Your task to perform on an android device: turn on improve location accuracy Image 0: 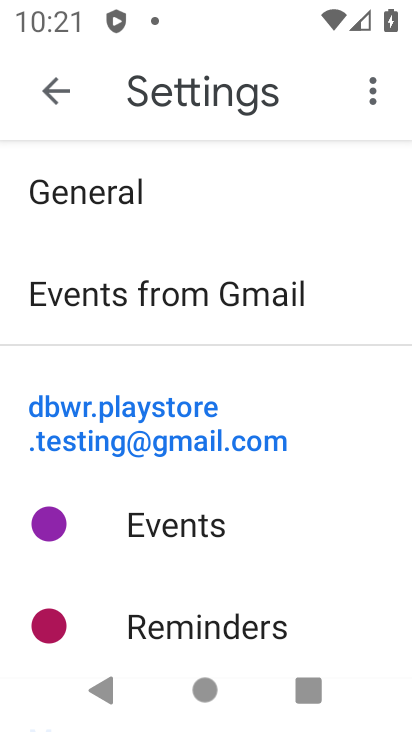
Step 0: press home button
Your task to perform on an android device: turn on improve location accuracy Image 1: 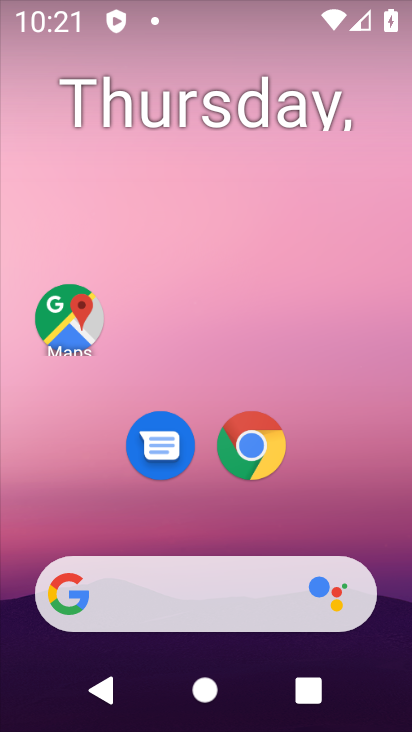
Step 1: drag from (249, 724) to (249, 154)
Your task to perform on an android device: turn on improve location accuracy Image 2: 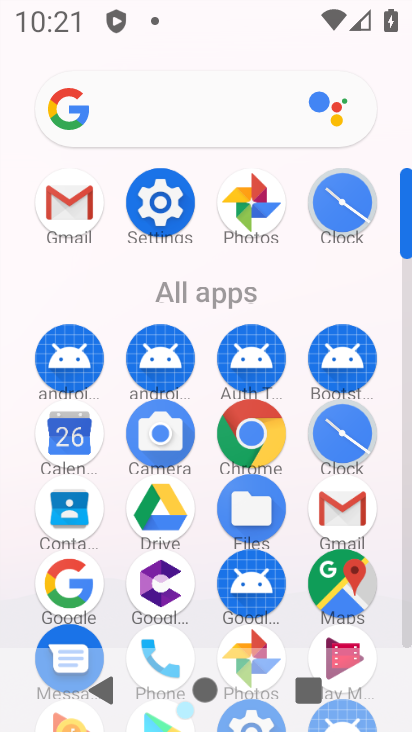
Step 2: click (153, 199)
Your task to perform on an android device: turn on improve location accuracy Image 3: 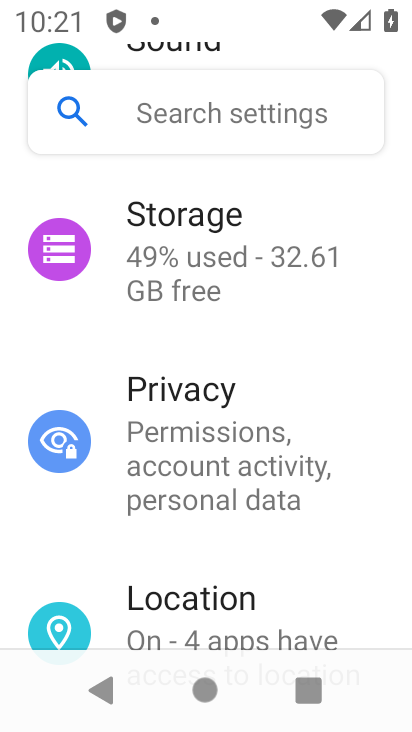
Step 3: click (174, 598)
Your task to perform on an android device: turn on improve location accuracy Image 4: 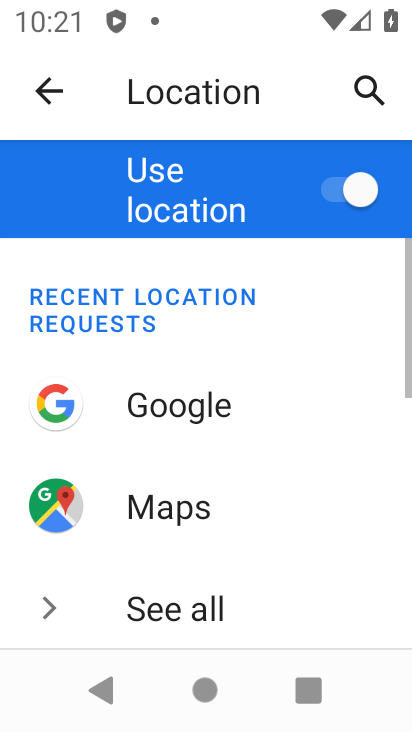
Step 4: drag from (284, 618) to (282, 228)
Your task to perform on an android device: turn on improve location accuracy Image 5: 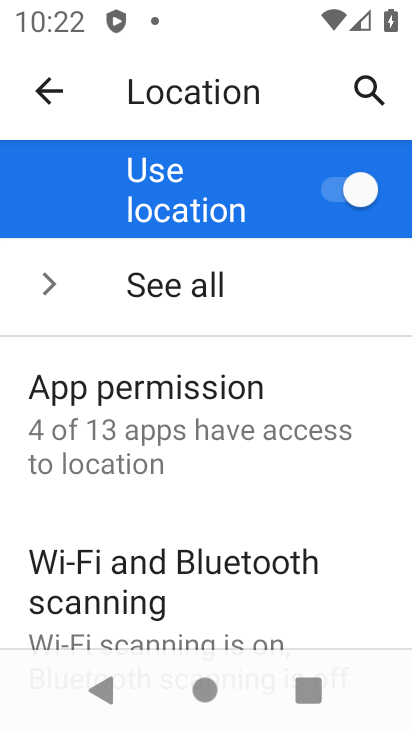
Step 5: drag from (309, 623) to (305, 333)
Your task to perform on an android device: turn on improve location accuracy Image 6: 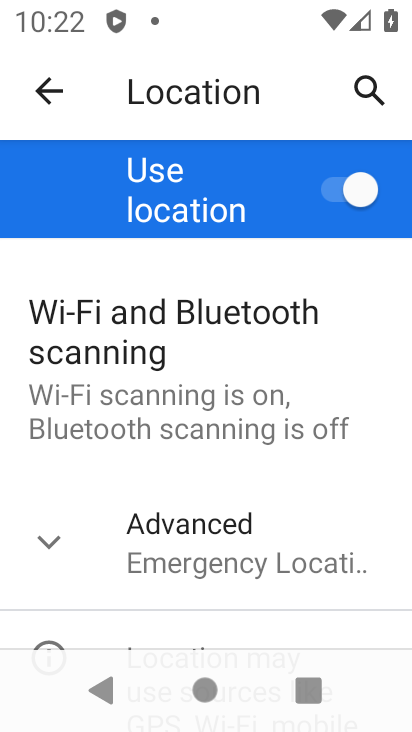
Step 6: click (185, 560)
Your task to perform on an android device: turn on improve location accuracy Image 7: 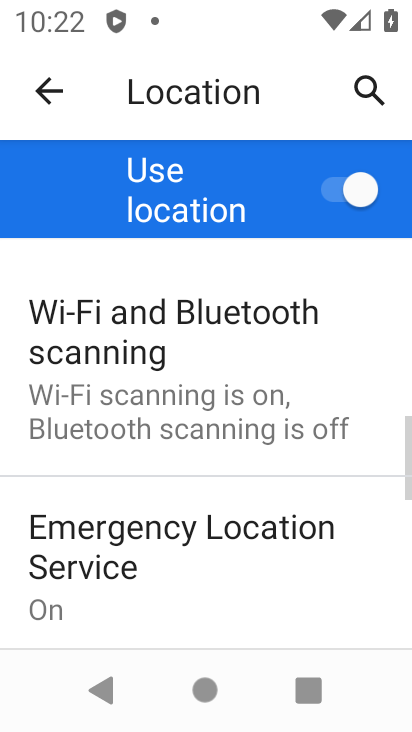
Step 7: drag from (305, 630) to (295, 257)
Your task to perform on an android device: turn on improve location accuracy Image 8: 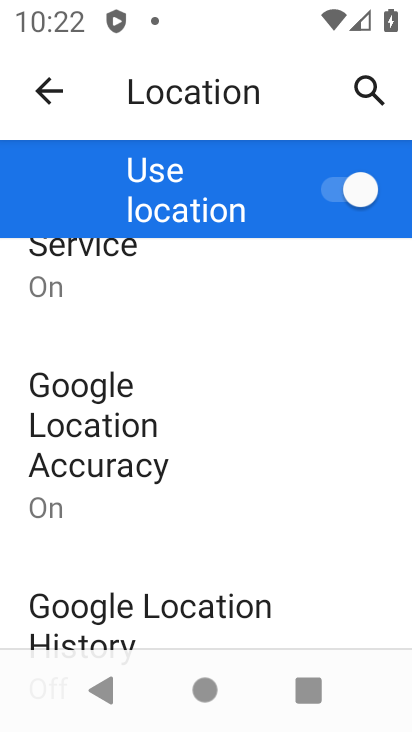
Step 8: click (83, 437)
Your task to perform on an android device: turn on improve location accuracy Image 9: 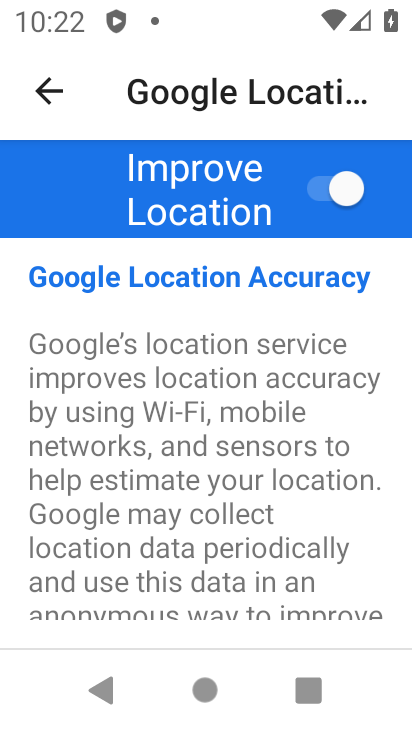
Step 9: task complete